Your task to perform on an android device: clear history in the chrome app Image 0: 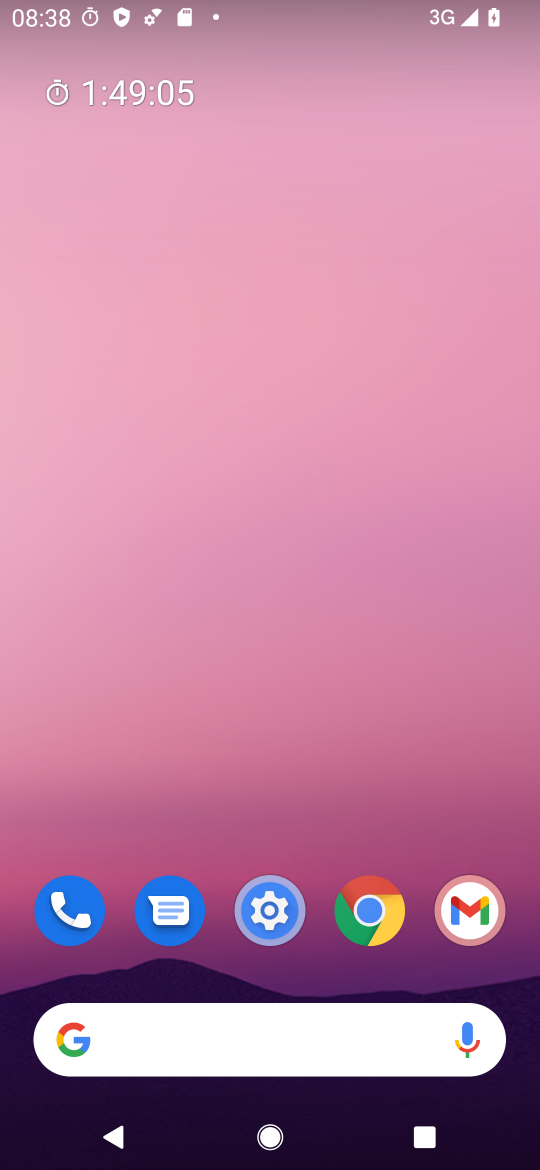
Step 0: drag from (261, 983) to (266, 1)
Your task to perform on an android device: clear history in the chrome app Image 1: 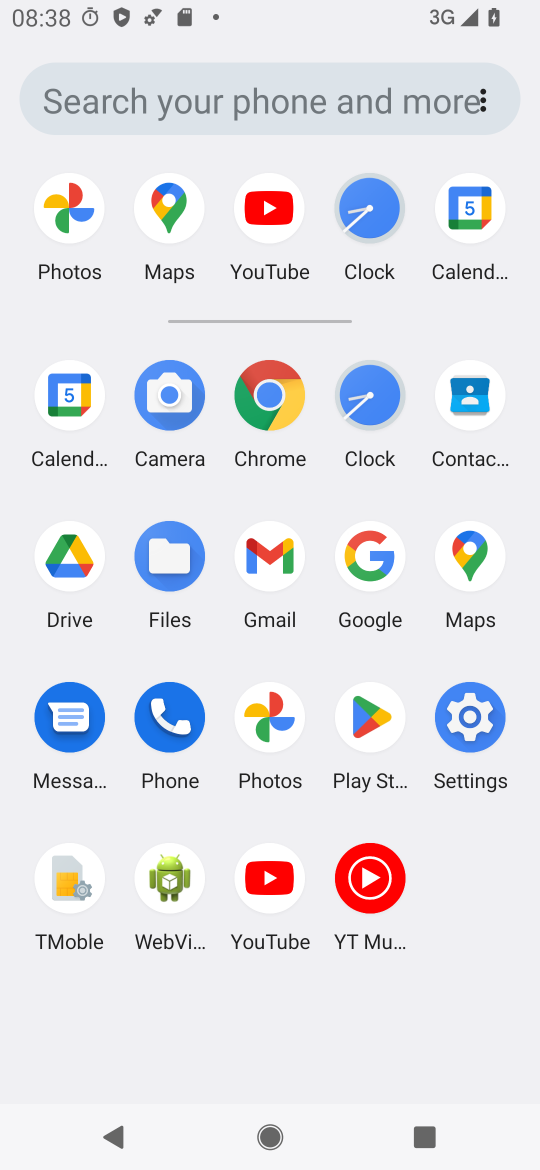
Step 1: click (273, 374)
Your task to perform on an android device: clear history in the chrome app Image 2: 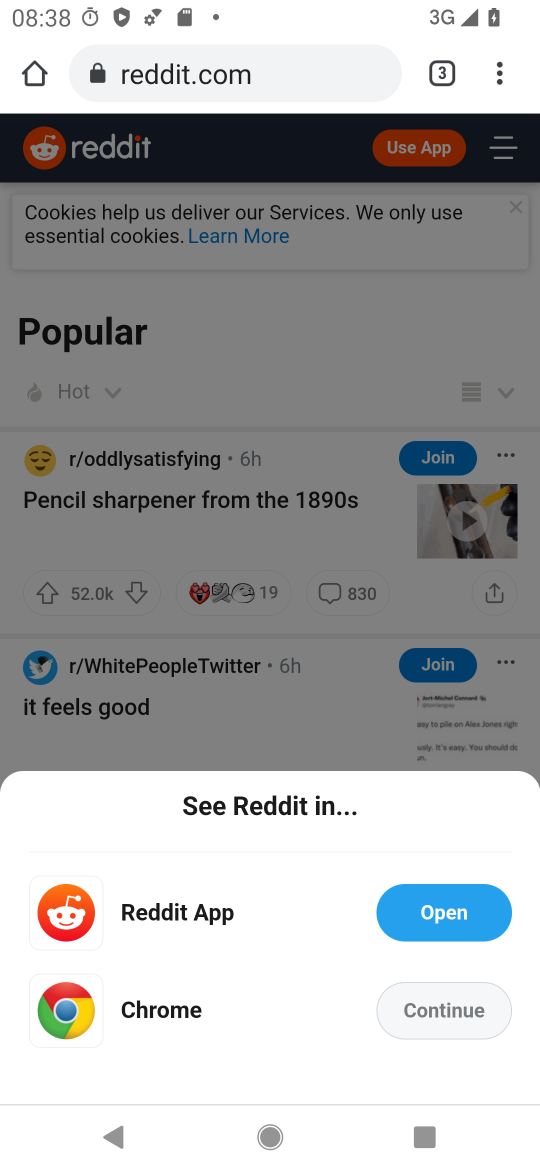
Step 2: click (507, 80)
Your task to perform on an android device: clear history in the chrome app Image 3: 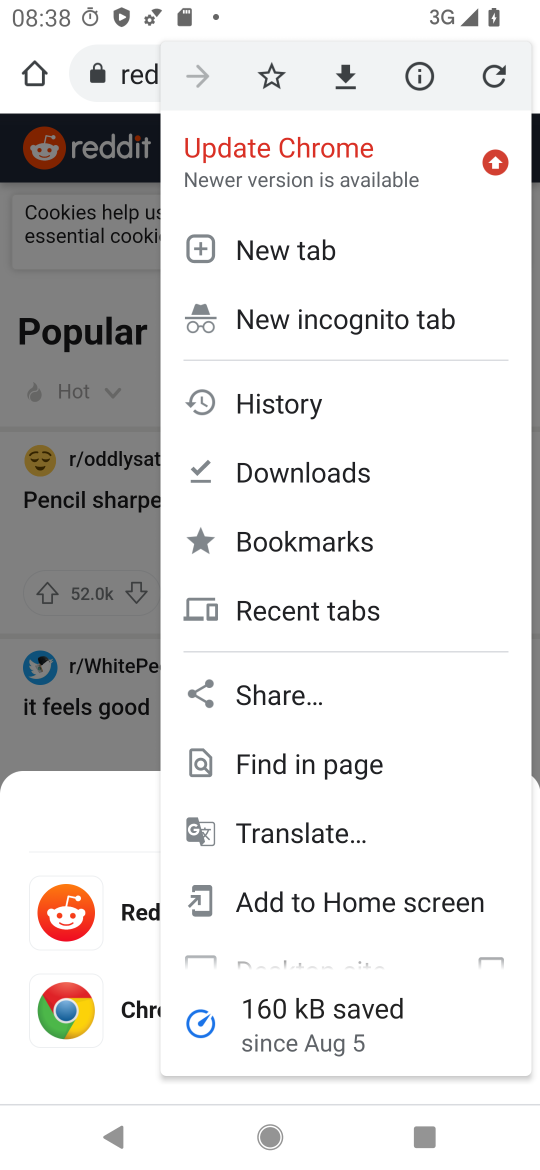
Step 3: click (299, 413)
Your task to perform on an android device: clear history in the chrome app Image 4: 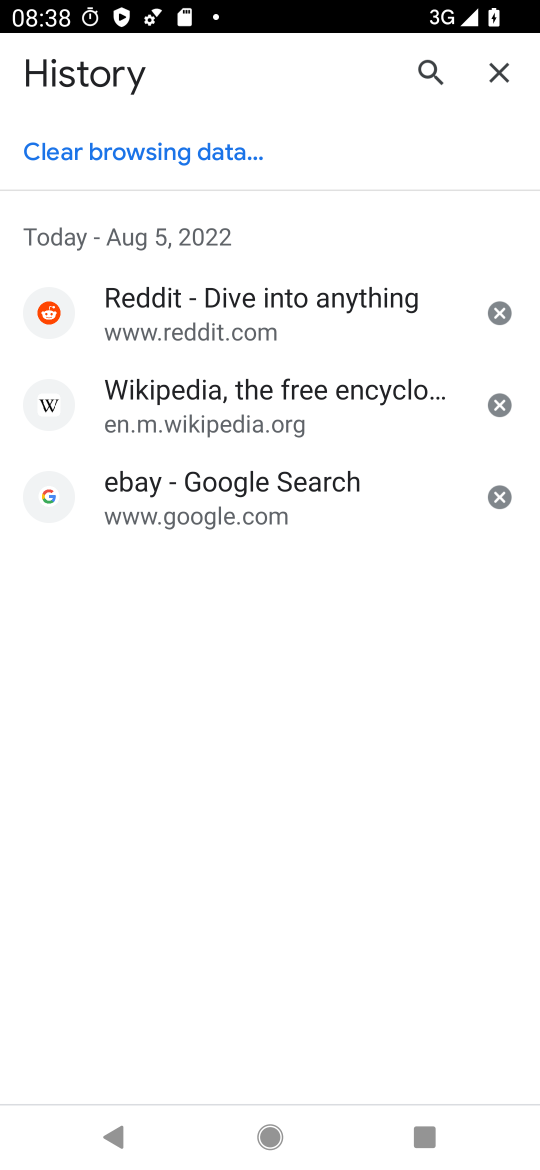
Step 4: click (206, 151)
Your task to perform on an android device: clear history in the chrome app Image 5: 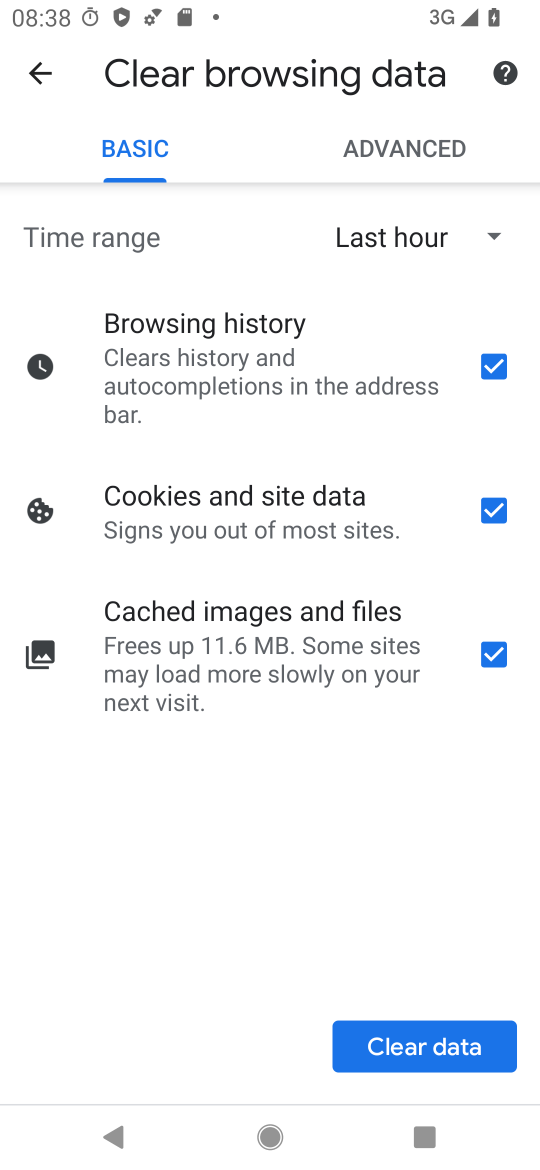
Step 5: click (447, 1032)
Your task to perform on an android device: clear history in the chrome app Image 6: 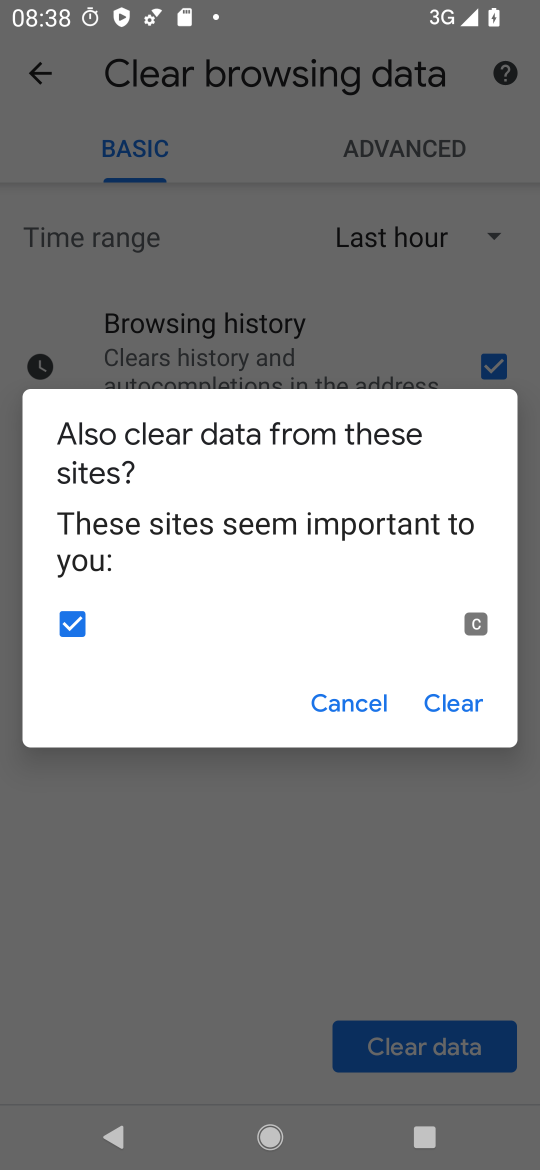
Step 6: click (449, 697)
Your task to perform on an android device: clear history in the chrome app Image 7: 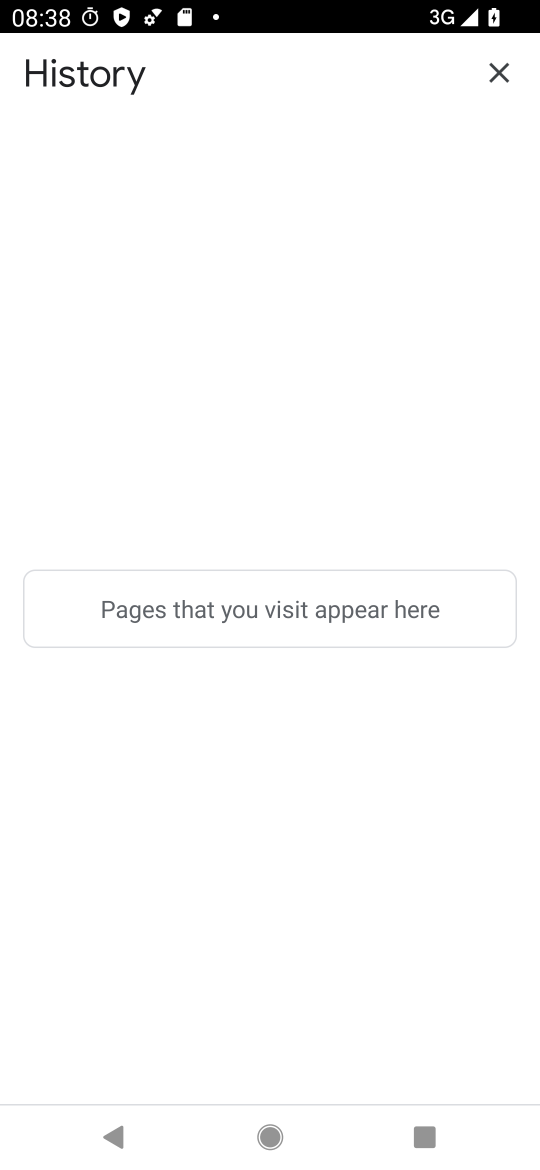
Step 7: task complete